Your task to perform on an android device: Go to Yahoo.com Image 0: 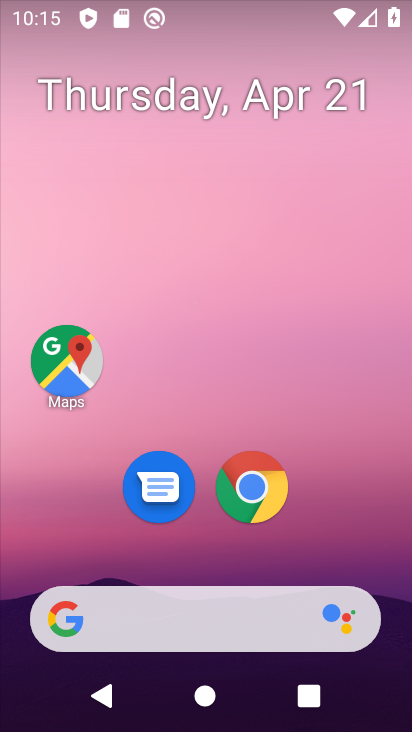
Step 0: drag from (241, 479) to (235, 89)
Your task to perform on an android device: Go to Yahoo.com Image 1: 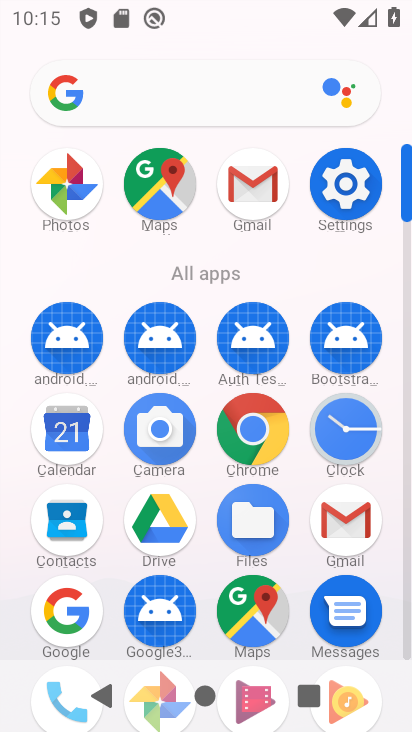
Step 1: click (260, 441)
Your task to perform on an android device: Go to Yahoo.com Image 2: 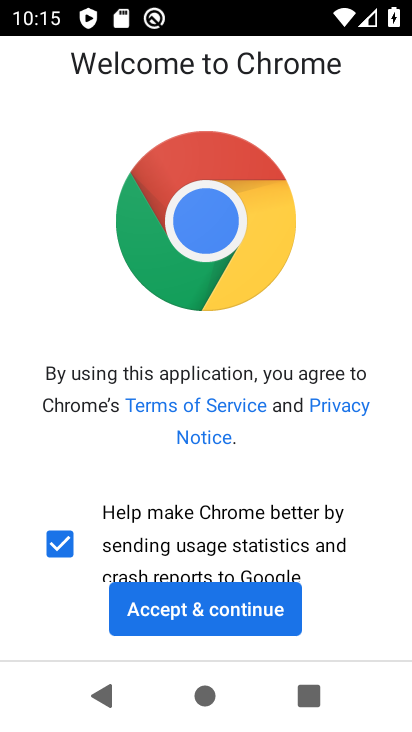
Step 2: click (220, 616)
Your task to perform on an android device: Go to Yahoo.com Image 3: 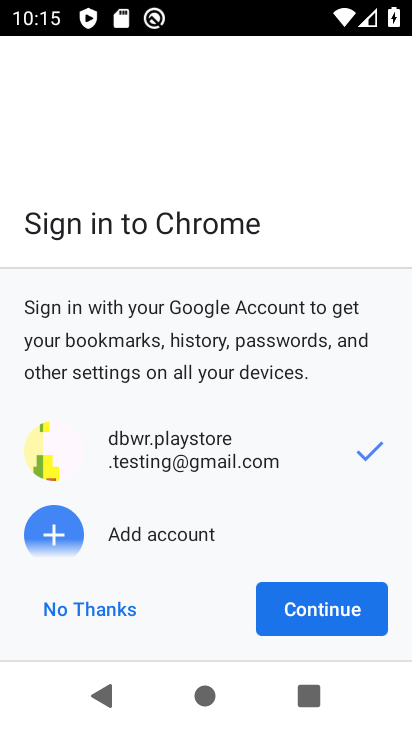
Step 3: click (297, 623)
Your task to perform on an android device: Go to Yahoo.com Image 4: 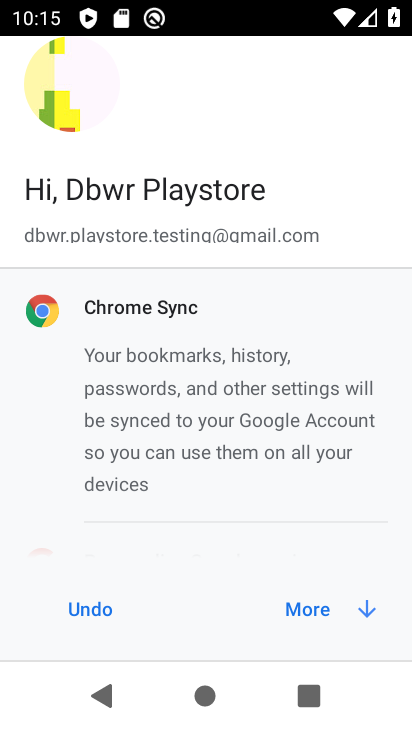
Step 4: click (314, 601)
Your task to perform on an android device: Go to Yahoo.com Image 5: 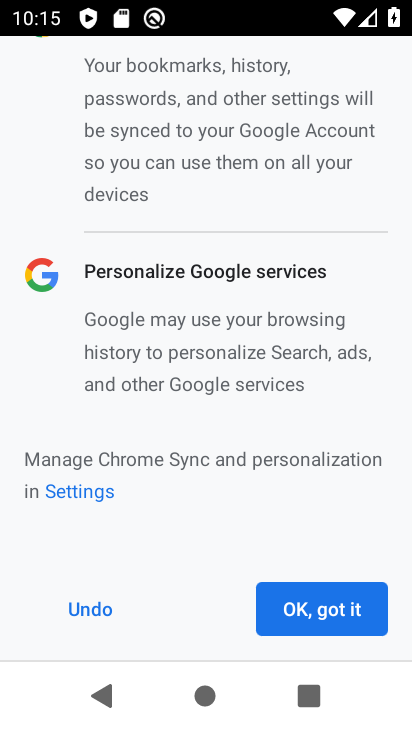
Step 5: click (356, 618)
Your task to perform on an android device: Go to Yahoo.com Image 6: 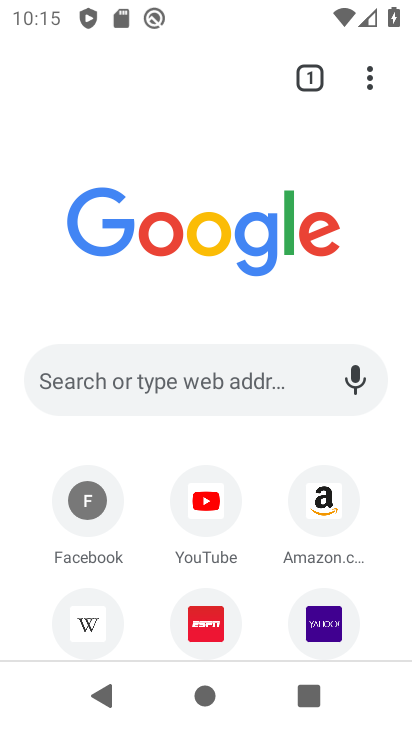
Step 6: click (210, 376)
Your task to perform on an android device: Go to Yahoo.com Image 7: 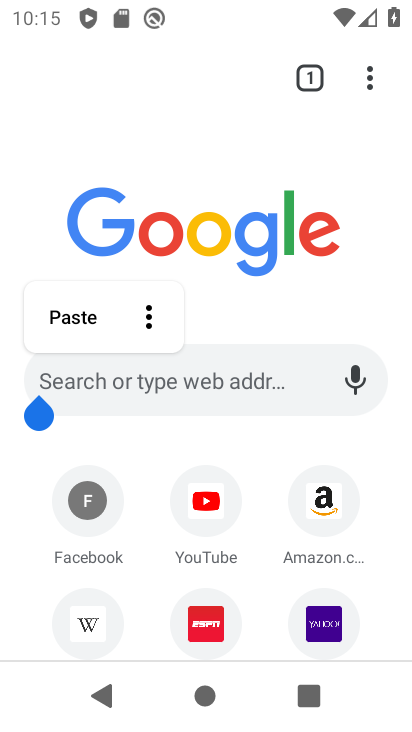
Step 7: click (181, 382)
Your task to perform on an android device: Go to Yahoo.com Image 8: 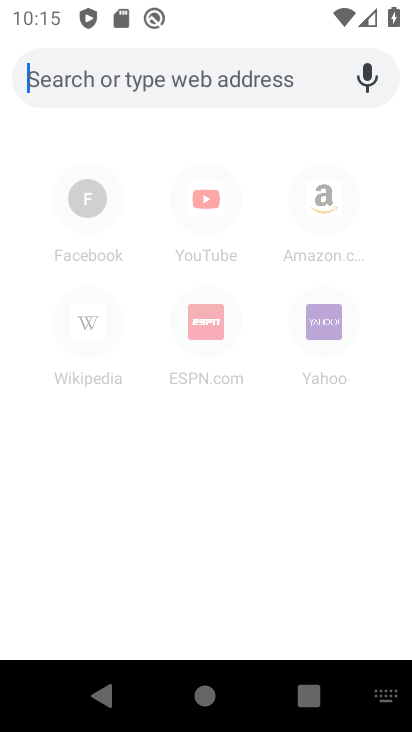
Step 8: type "Yahoo.com"
Your task to perform on an android device: Go to Yahoo.com Image 9: 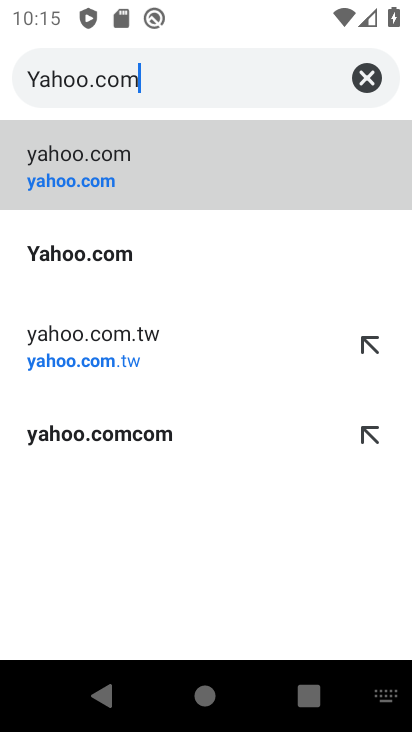
Step 9: click (92, 182)
Your task to perform on an android device: Go to Yahoo.com Image 10: 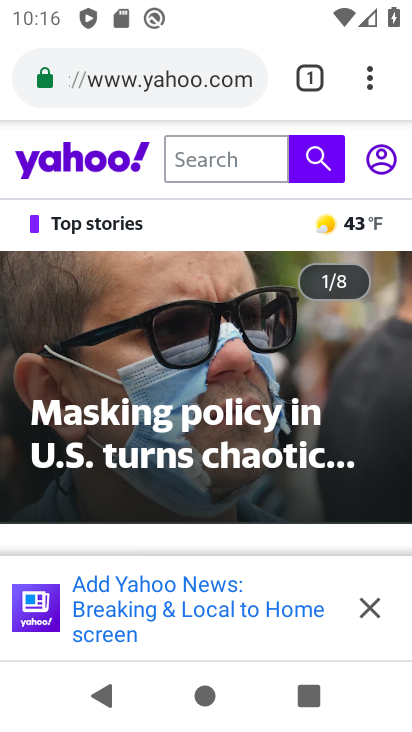
Step 10: task complete